Your task to perform on an android device: Do I have any events today? Image 0: 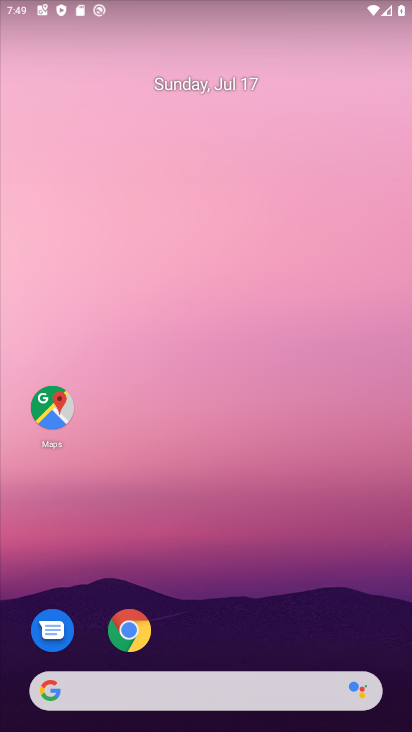
Step 0: drag from (258, 464) to (256, 28)
Your task to perform on an android device: Do I have any events today? Image 1: 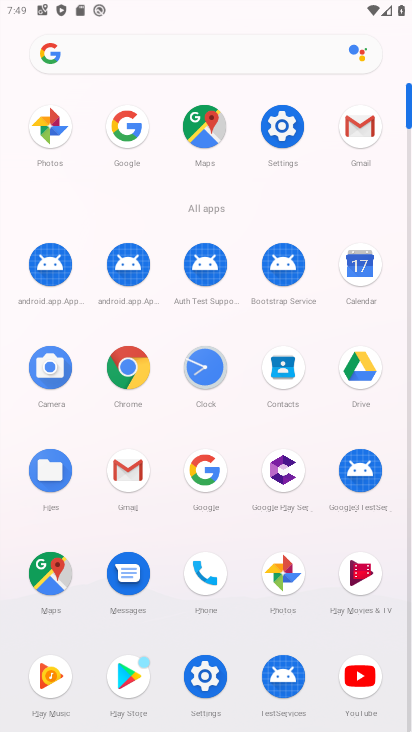
Step 1: click (353, 260)
Your task to perform on an android device: Do I have any events today? Image 2: 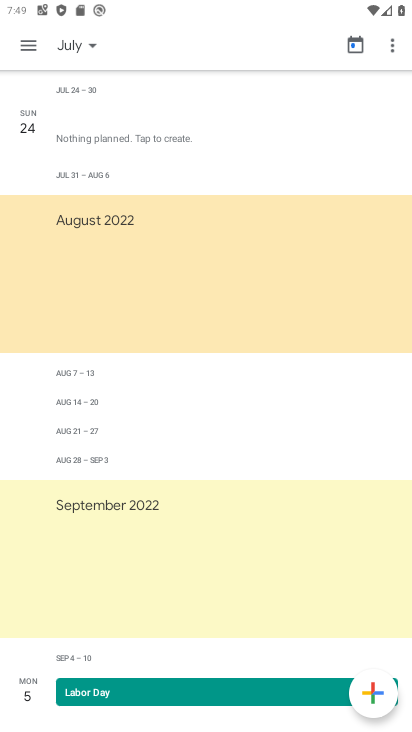
Step 2: click (72, 45)
Your task to perform on an android device: Do I have any events today? Image 3: 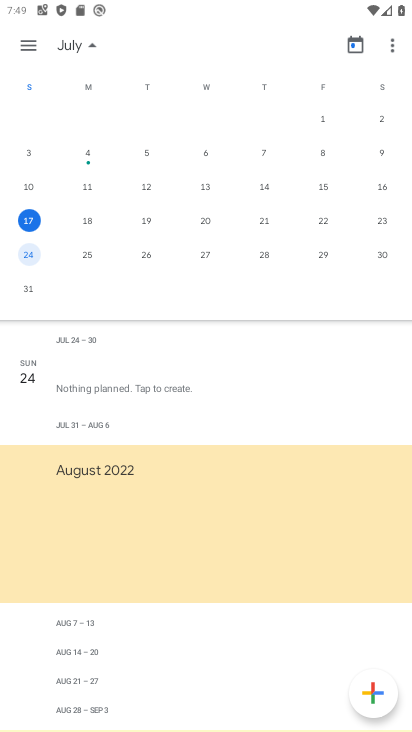
Step 3: click (34, 215)
Your task to perform on an android device: Do I have any events today? Image 4: 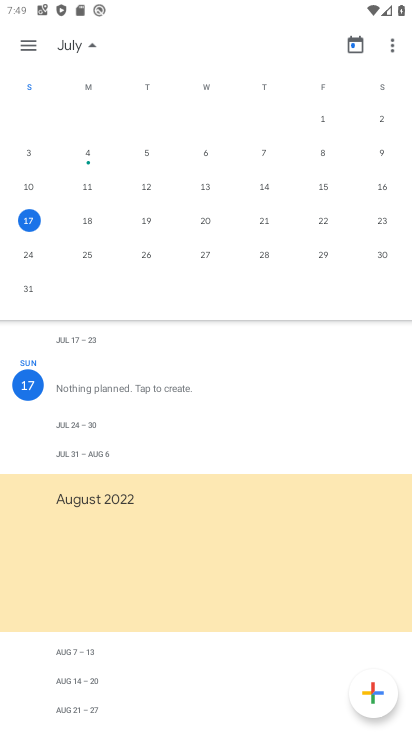
Step 4: task complete